Your task to perform on an android device: What's on my calendar tomorrow? Image 0: 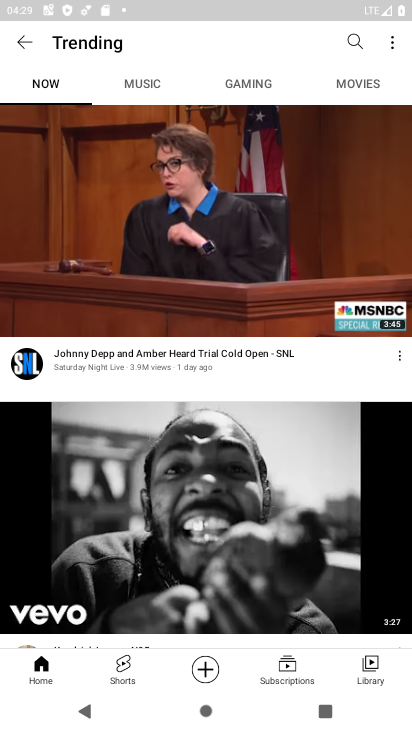
Step 0: press back button
Your task to perform on an android device: What's on my calendar tomorrow? Image 1: 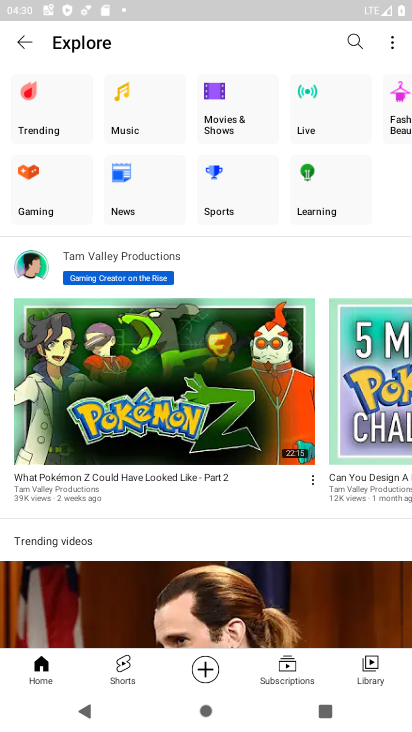
Step 1: press back button
Your task to perform on an android device: What's on my calendar tomorrow? Image 2: 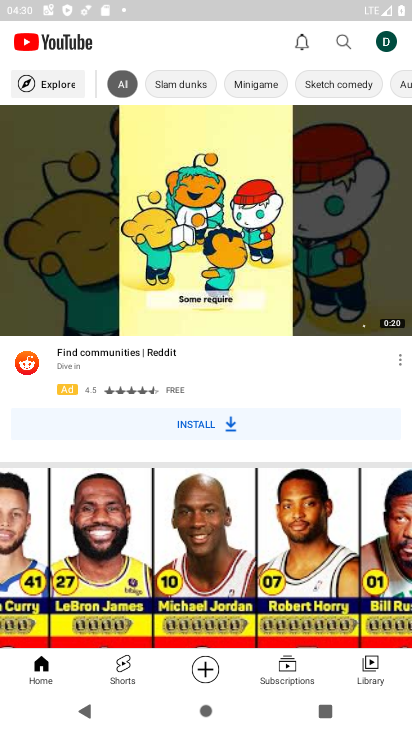
Step 2: press home button
Your task to perform on an android device: What's on my calendar tomorrow? Image 3: 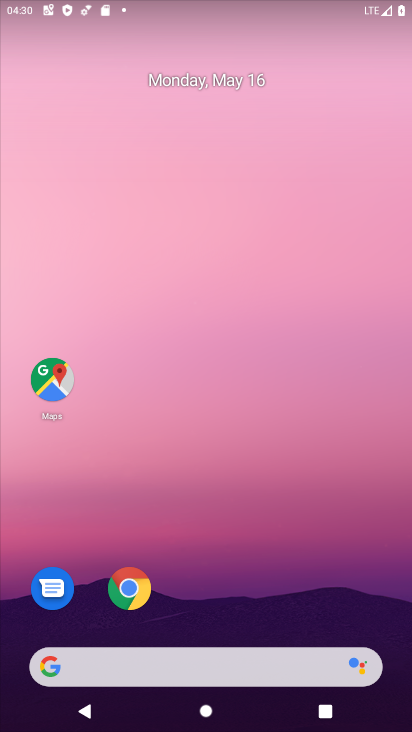
Step 3: drag from (252, 532) to (291, 700)
Your task to perform on an android device: What's on my calendar tomorrow? Image 4: 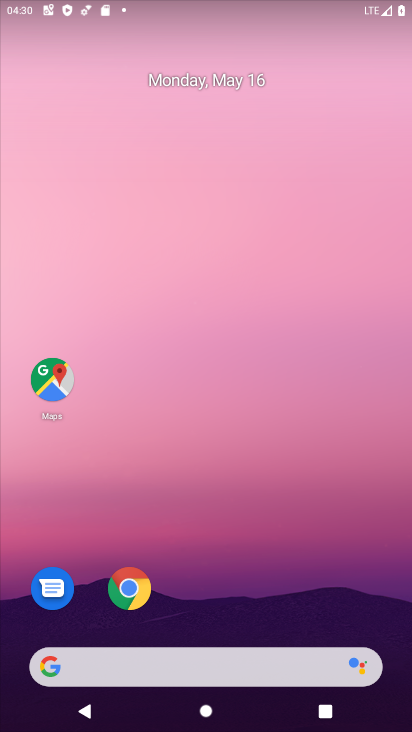
Step 4: drag from (272, 508) to (251, 0)
Your task to perform on an android device: What's on my calendar tomorrow? Image 5: 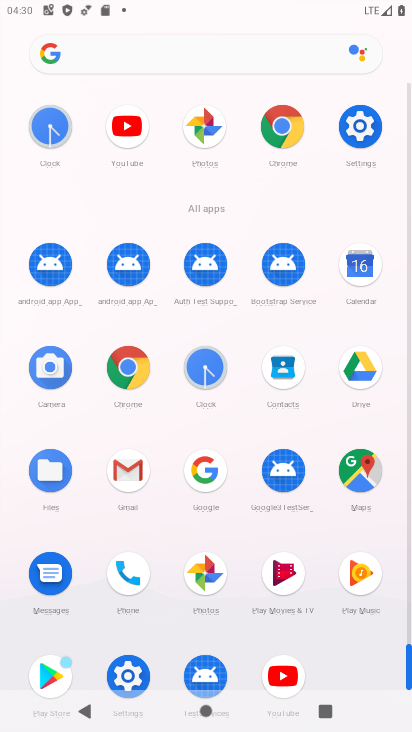
Step 5: click (362, 261)
Your task to perform on an android device: What's on my calendar tomorrow? Image 6: 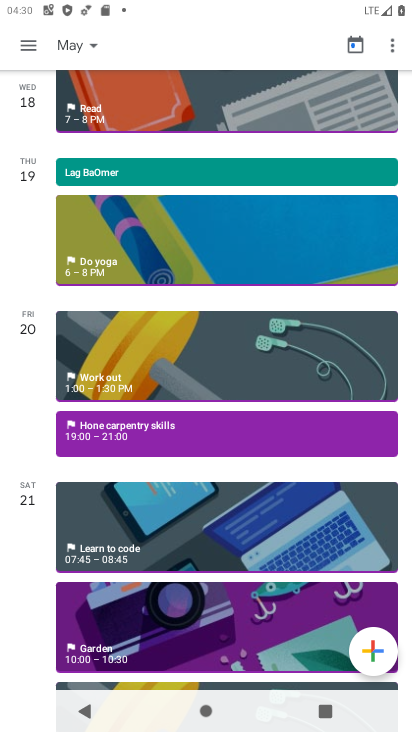
Step 6: drag from (266, 415) to (266, 167)
Your task to perform on an android device: What's on my calendar tomorrow? Image 7: 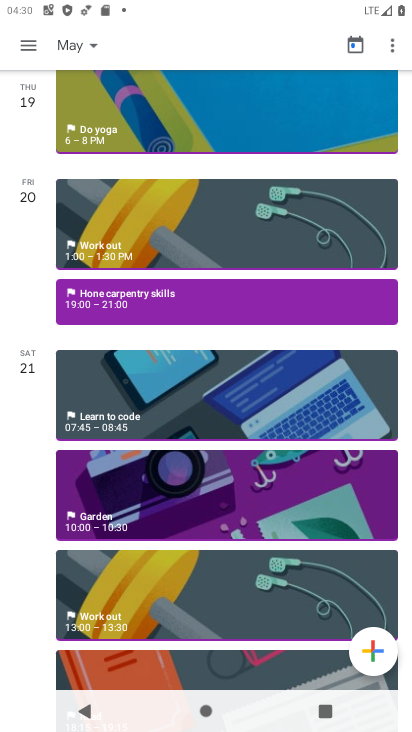
Step 7: drag from (242, 493) to (243, 107)
Your task to perform on an android device: What's on my calendar tomorrow? Image 8: 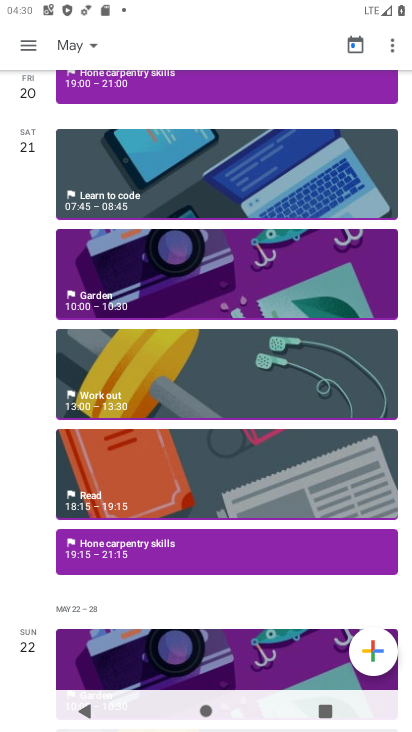
Step 8: drag from (241, 587) to (251, 160)
Your task to perform on an android device: What's on my calendar tomorrow? Image 9: 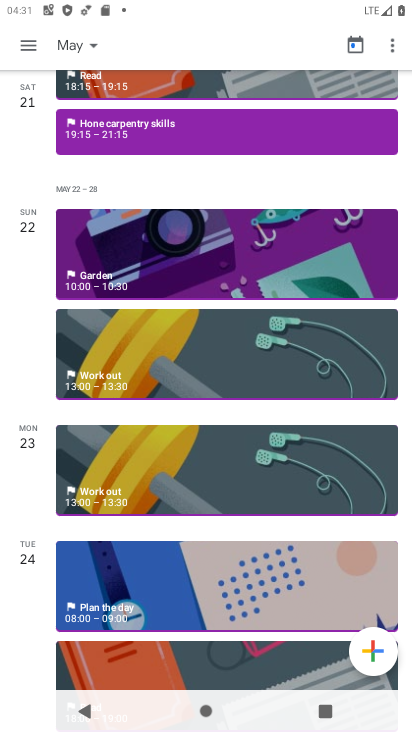
Step 9: click (352, 43)
Your task to perform on an android device: What's on my calendar tomorrow? Image 10: 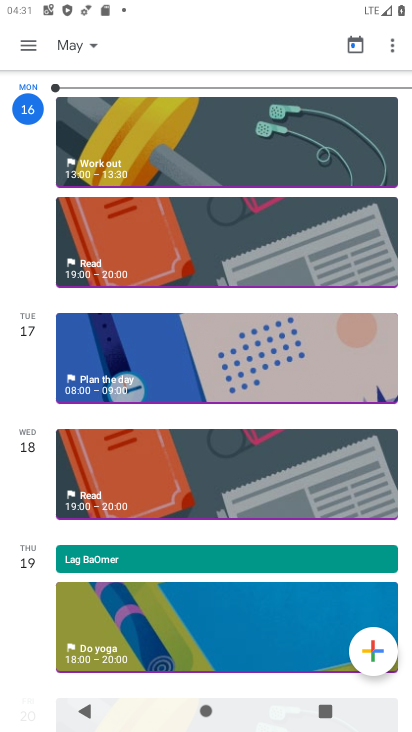
Step 10: click (24, 329)
Your task to perform on an android device: What's on my calendar tomorrow? Image 11: 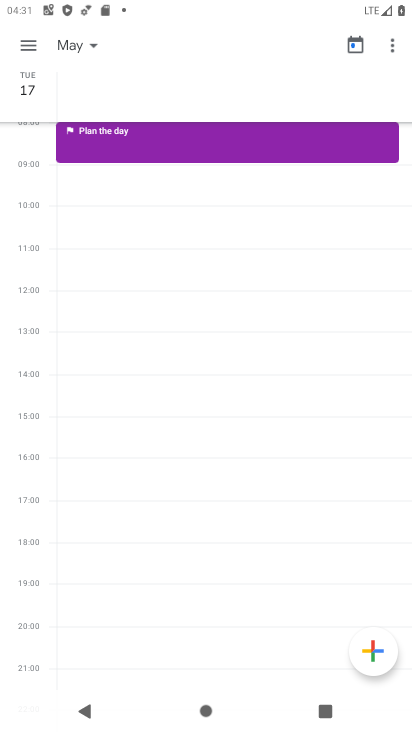
Step 11: task complete